Your task to perform on an android device: turn on the 12-hour format for clock Image 0: 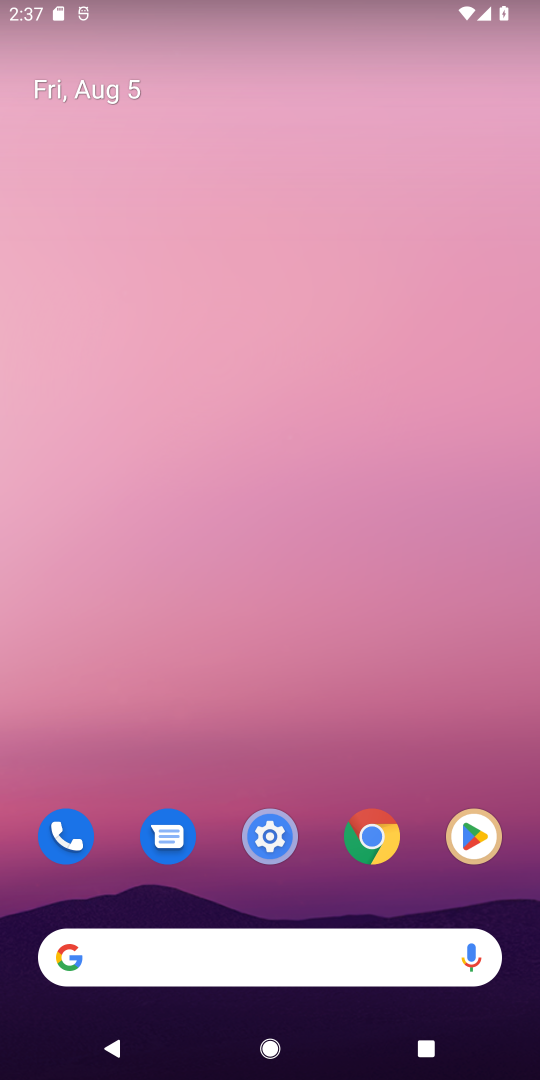
Step 0: drag from (127, 992) to (93, 94)
Your task to perform on an android device: turn on the 12-hour format for clock Image 1: 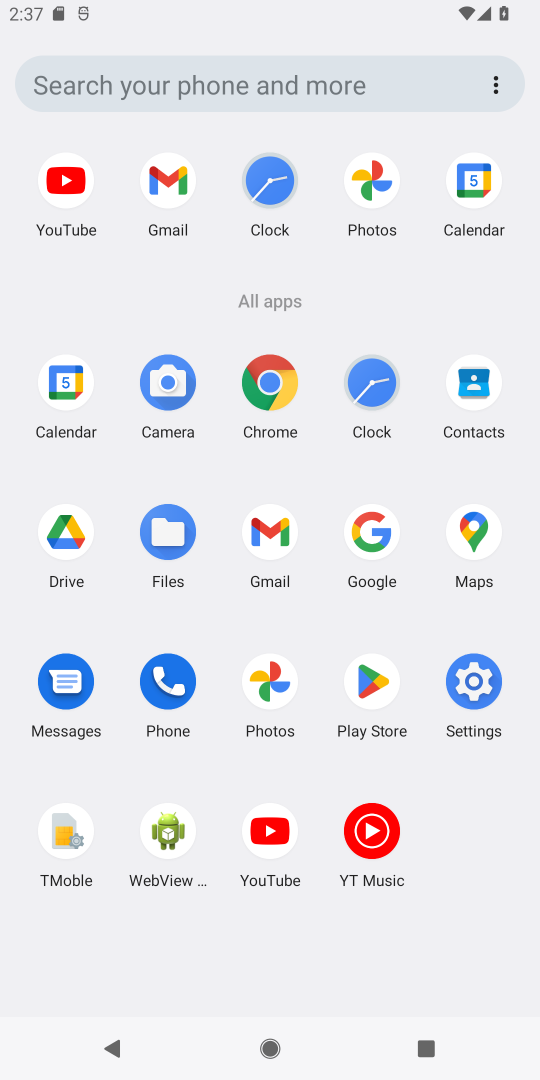
Step 1: click (369, 385)
Your task to perform on an android device: turn on the 12-hour format for clock Image 2: 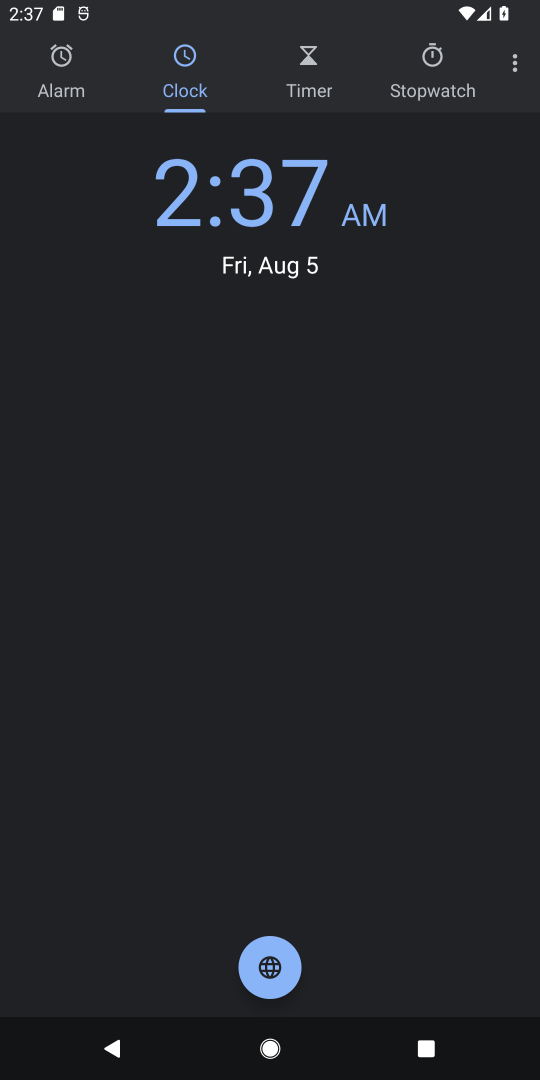
Step 2: click (527, 73)
Your task to perform on an android device: turn on the 12-hour format for clock Image 3: 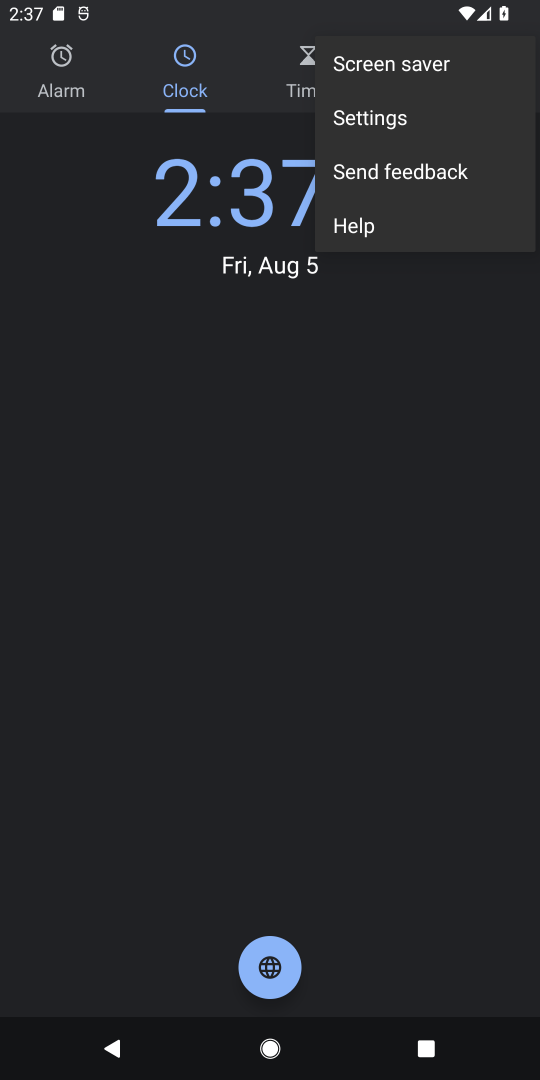
Step 3: click (339, 125)
Your task to perform on an android device: turn on the 12-hour format for clock Image 4: 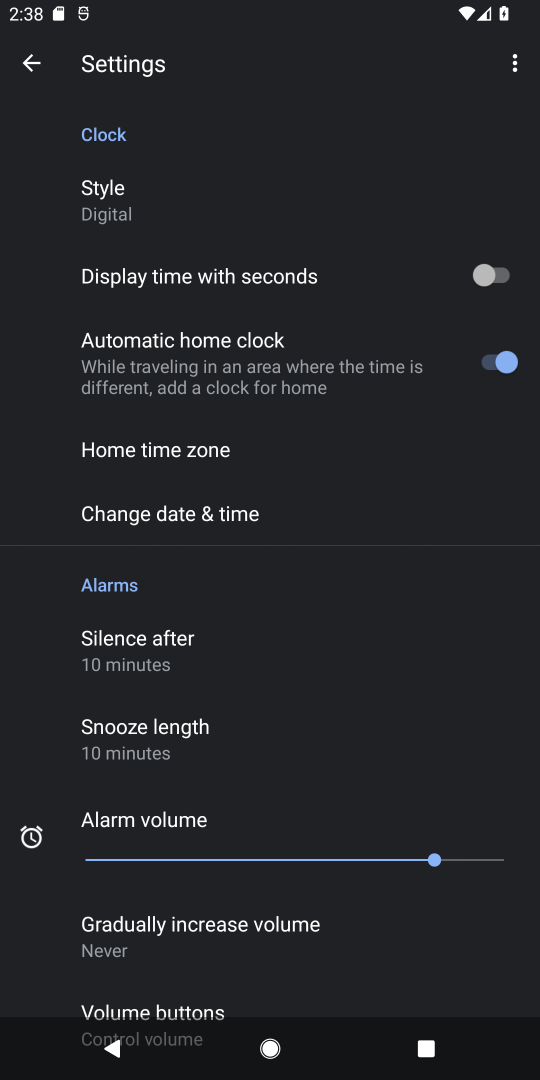
Step 4: click (186, 502)
Your task to perform on an android device: turn on the 12-hour format for clock Image 5: 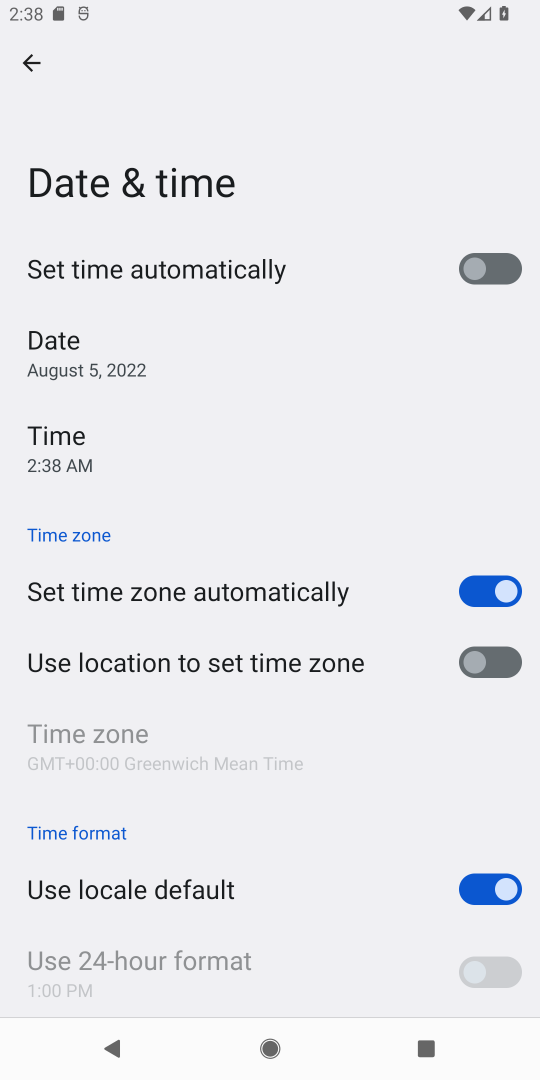
Step 5: task complete